Your task to perform on an android device: Show me popular games on the Play Store Image 0: 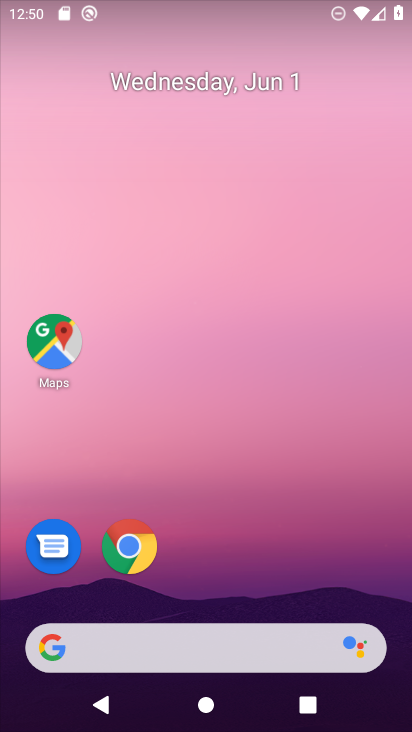
Step 0: drag from (302, 588) to (154, 145)
Your task to perform on an android device: Show me popular games on the Play Store Image 1: 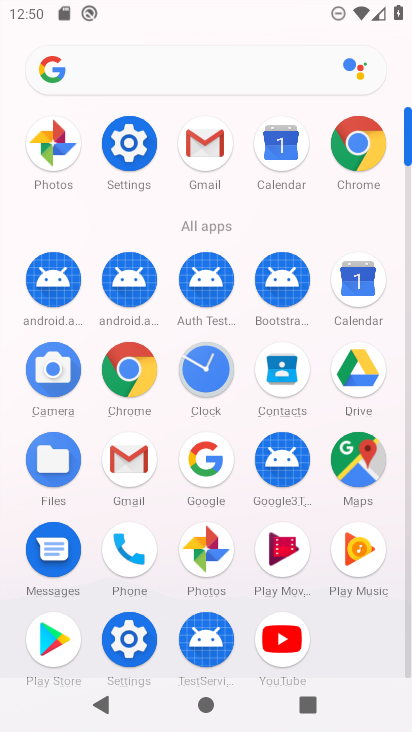
Step 1: click (63, 643)
Your task to perform on an android device: Show me popular games on the Play Store Image 2: 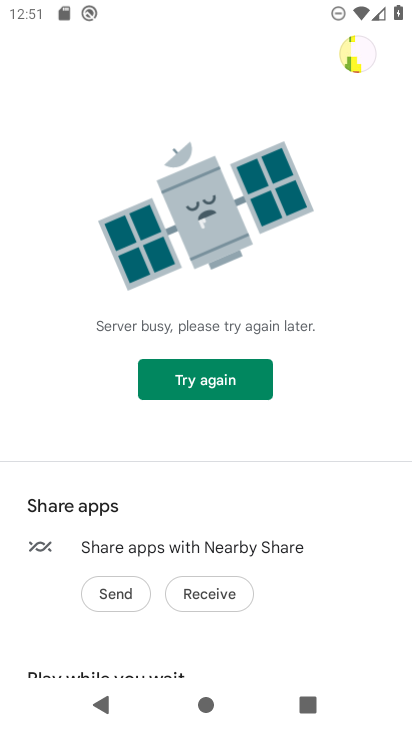
Step 2: click (238, 377)
Your task to perform on an android device: Show me popular games on the Play Store Image 3: 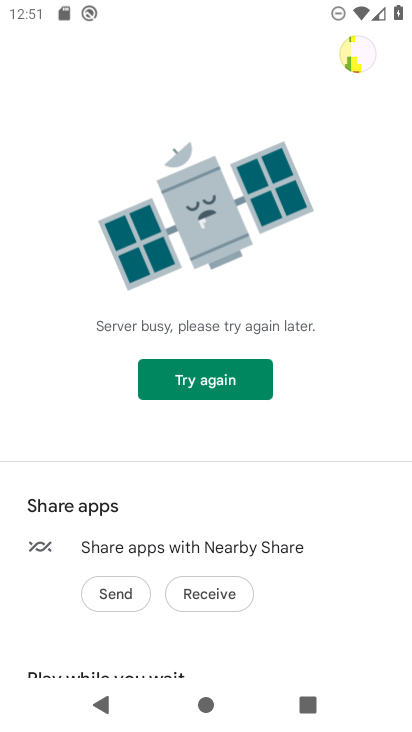
Step 3: task complete